Your task to perform on an android device: Go to Amazon Image 0: 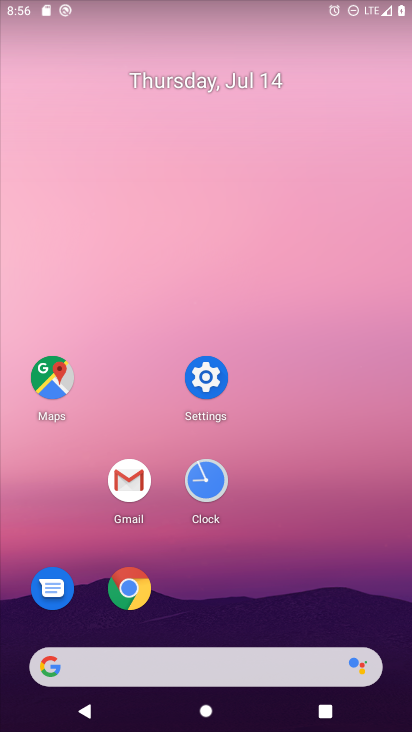
Step 0: click (129, 585)
Your task to perform on an android device: Go to Amazon Image 1: 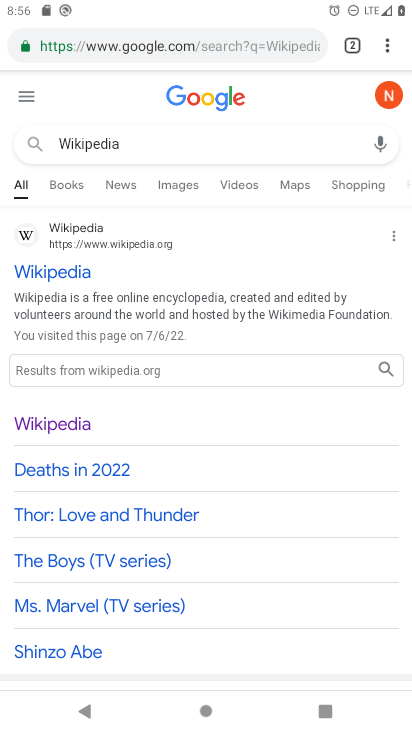
Step 1: click (314, 46)
Your task to perform on an android device: Go to Amazon Image 2: 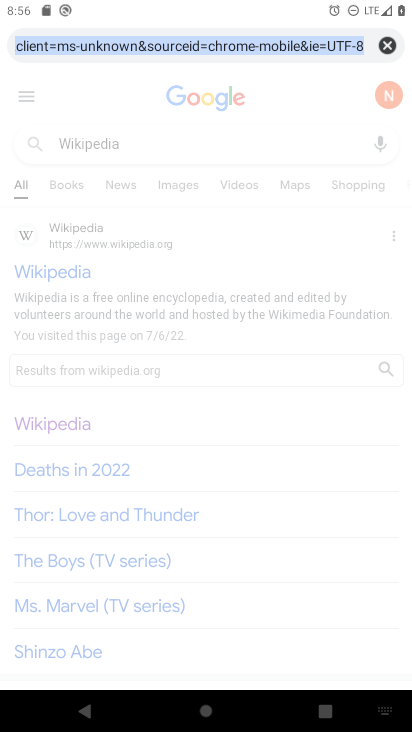
Step 2: click (390, 39)
Your task to perform on an android device: Go to Amazon Image 3: 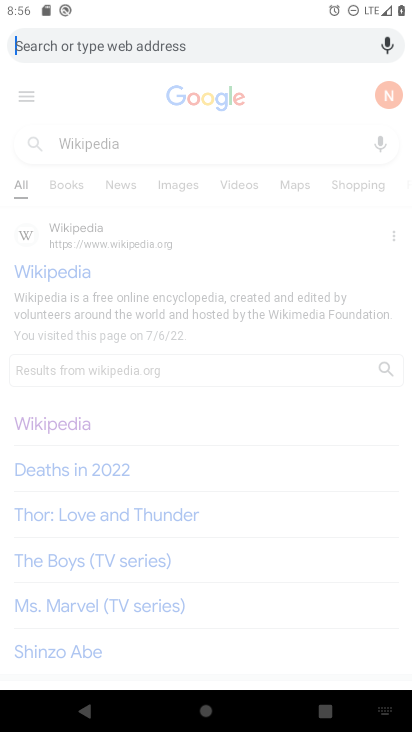
Step 3: type "Amazon"
Your task to perform on an android device: Go to Amazon Image 4: 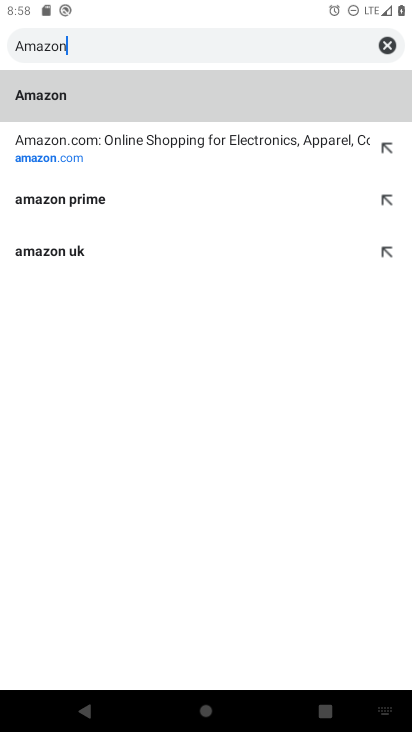
Step 4: click (74, 99)
Your task to perform on an android device: Go to Amazon Image 5: 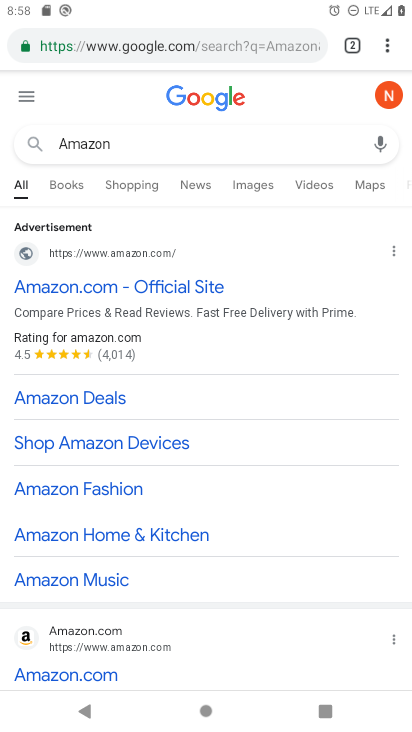
Step 5: task complete